Your task to perform on an android device: Show me popular videos on Youtube Image 0: 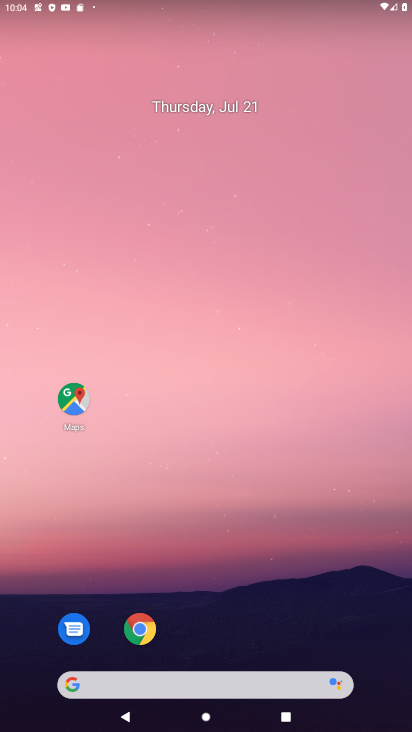
Step 0: drag from (220, 627) to (293, 30)
Your task to perform on an android device: Show me popular videos on Youtube Image 1: 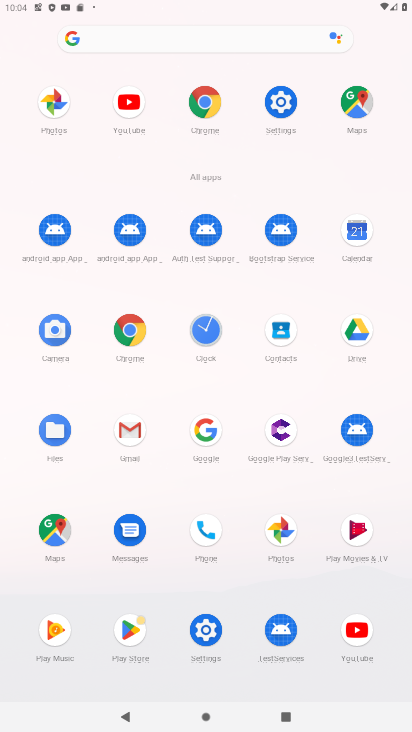
Step 1: click (341, 669)
Your task to perform on an android device: Show me popular videos on Youtube Image 2: 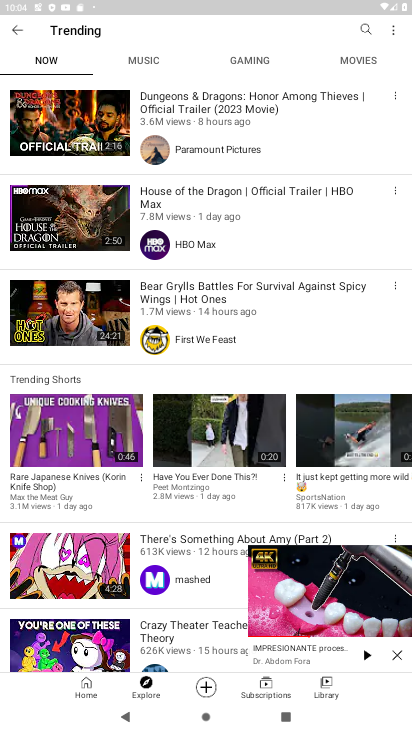
Step 2: task complete